Your task to perform on an android device: check out phone information Image 0: 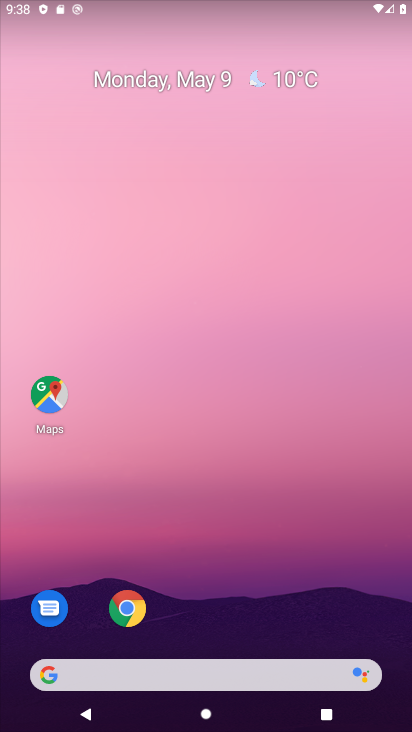
Step 0: drag from (213, 545) to (214, 121)
Your task to perform on an android device: check out phone information Image 1: 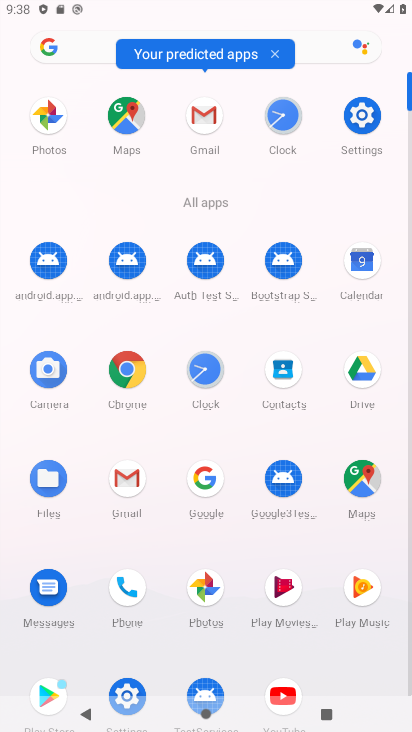
Step 1: click (354, 129)
Your task to perform on an android device: check out phone information Image 2: 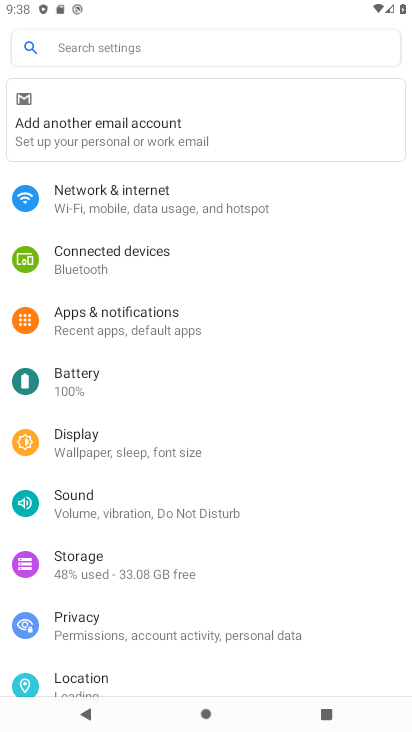
Step 2: drag from (213, 665) to (247, 268)
Your task to perform on an android device: check out phone information Image 3: 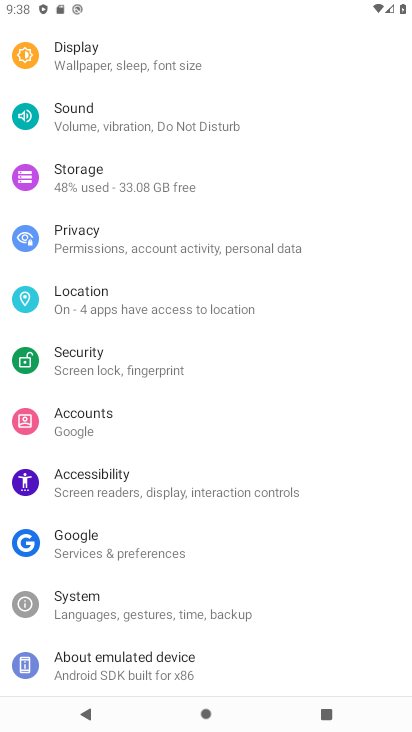
Step 3: click (152, 666)
Your task to perform on an android device: check out phone information Image 4: 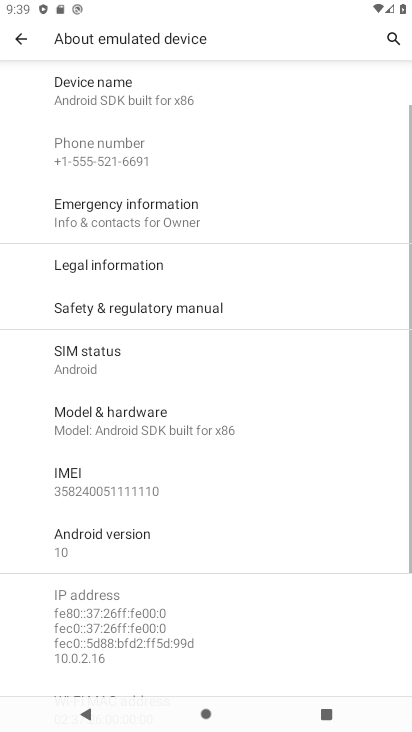
Step 4: click (148, 435)
Your task to perform on an android device: check out phone information Image 5: 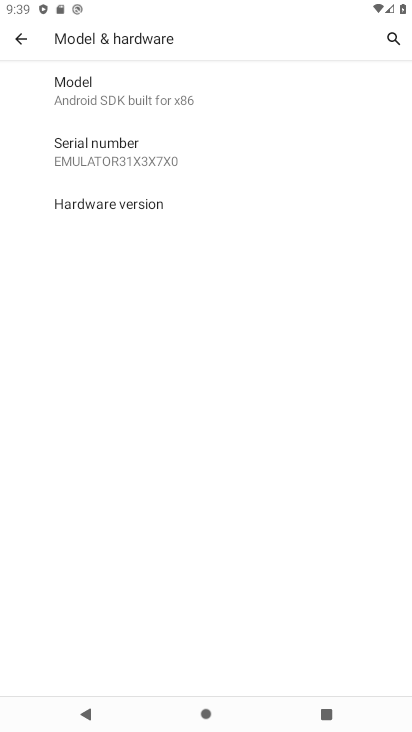
Step 5: task complete